Your task to perform on an android device: Show me recent news Image 0: 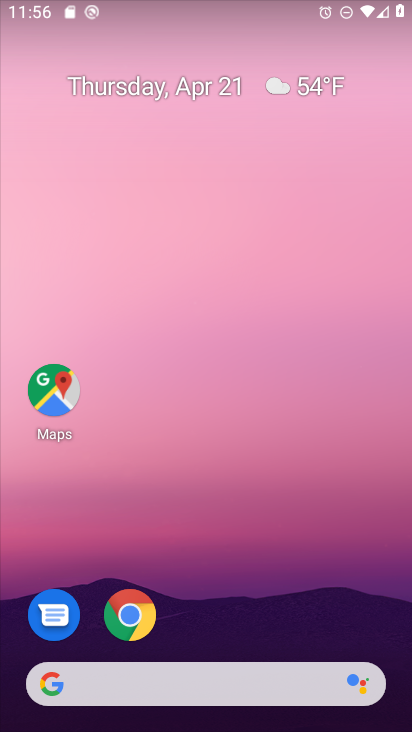
Step 0: drag from (227, 623) to (235, 43)
Your task to perform on an android device: Show me recent news Image 1: 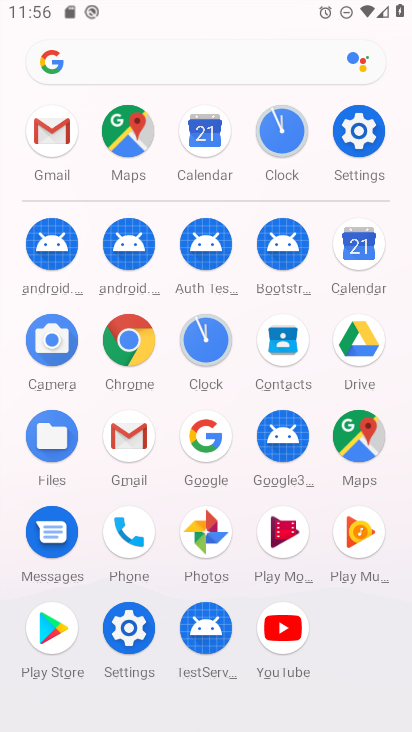
Step 1: click (96, 61)
Your task to perform on an android device: Show me recent news Image 2: 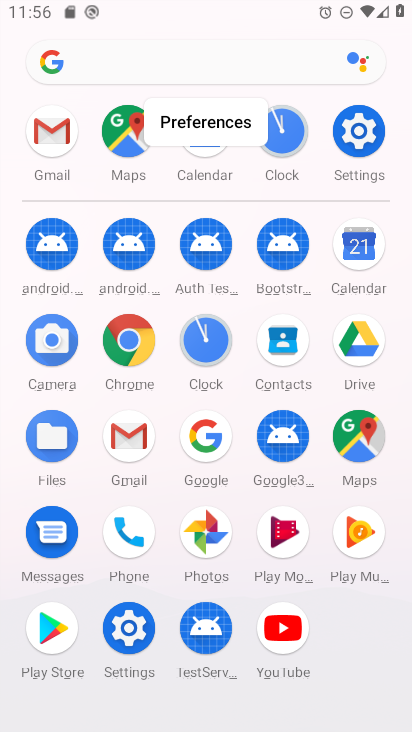
Step 2: click (98, 59)
Your task to perform on an android device: Show me recent news Image 3: 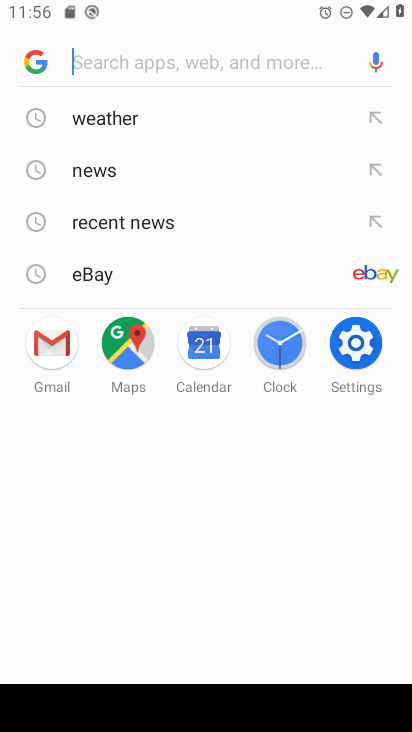
Step 3: type "recent news"
Your task to perform on an android device: Show me recent news Image 4: 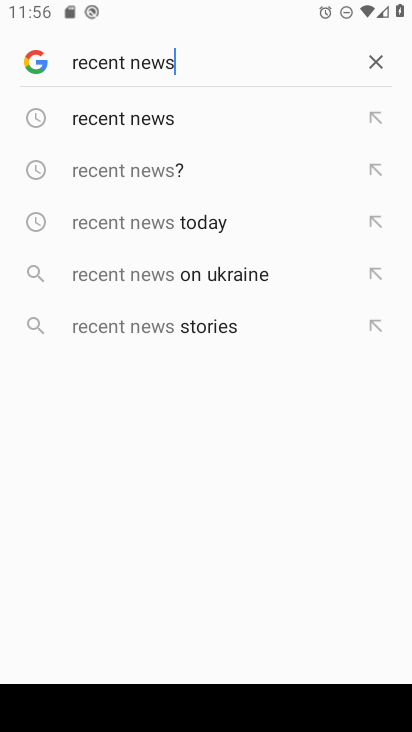
Step 4: click (198, 114)
Your task to perform on an android device: Show me recent news Image 5: 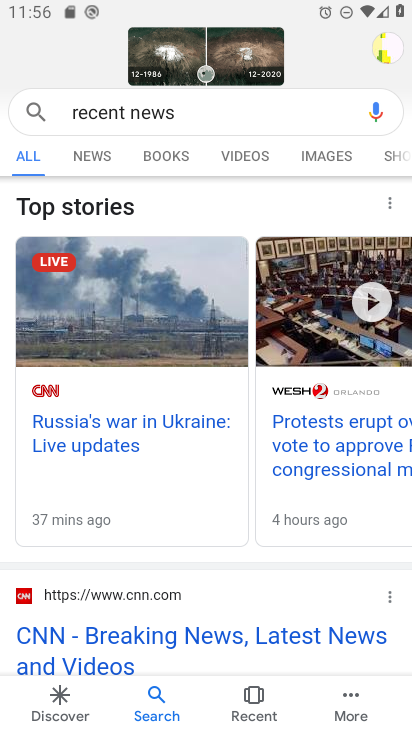
Step 5: click (100, 161)
Your task to perform on an android device: Show me recent news Image 6: 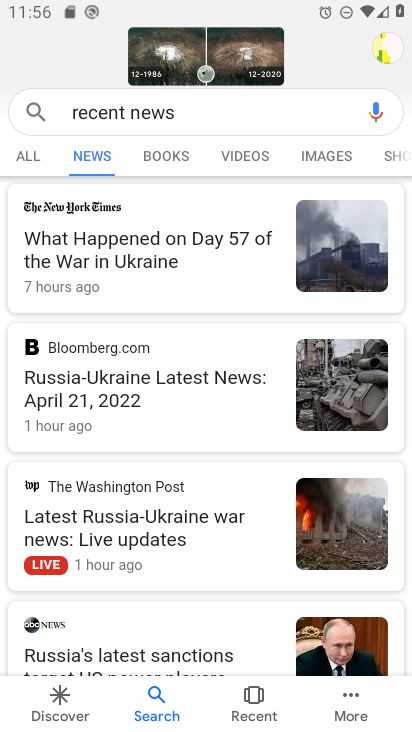
Step 6: task complete